Your task to perform on an android device: turn on javascript in the chrome app Image 0: 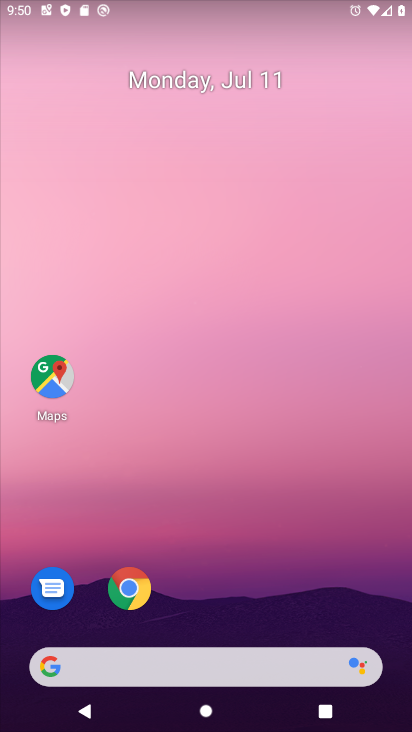
Step 0: click (134, 601)
Your task to perform on an android device: turn on javascript in the chrome app Image 1: 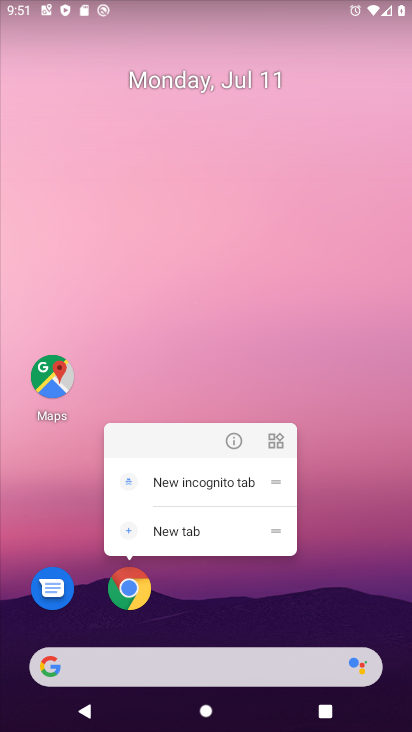
Step 1: click (134, 601)
Your task to perform on an android device: turn on javascript in the chrome app Image 2: 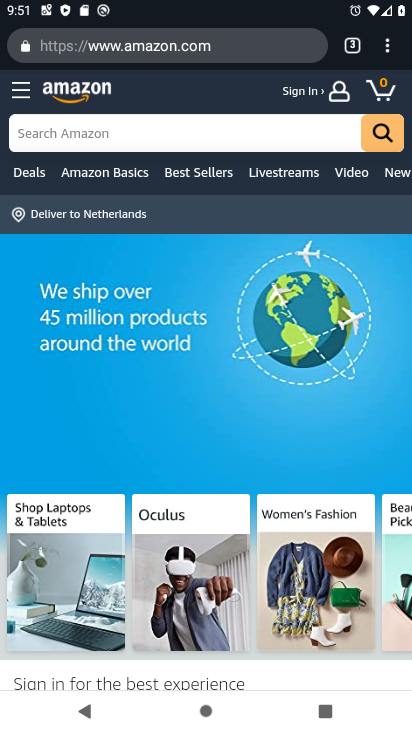
Step 2: drag from (390, 40) to (230, 542)
Your task to perform on an android device: turn on javascript in the chrome app Image 3: 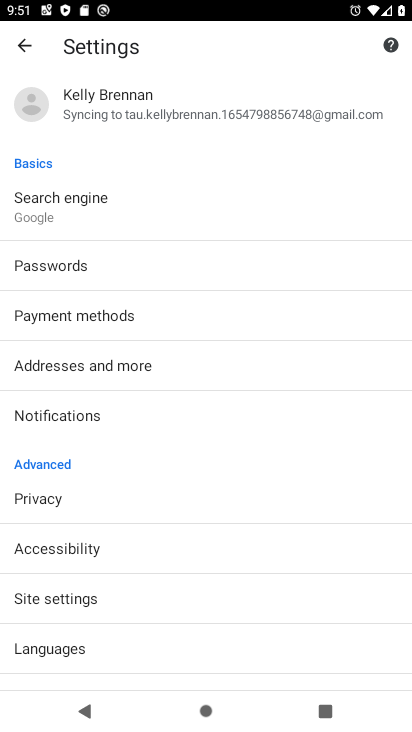
Step 3: click (74, 607)
Your task to perform on an android device: turn on javascript in the chrome app Image 4: 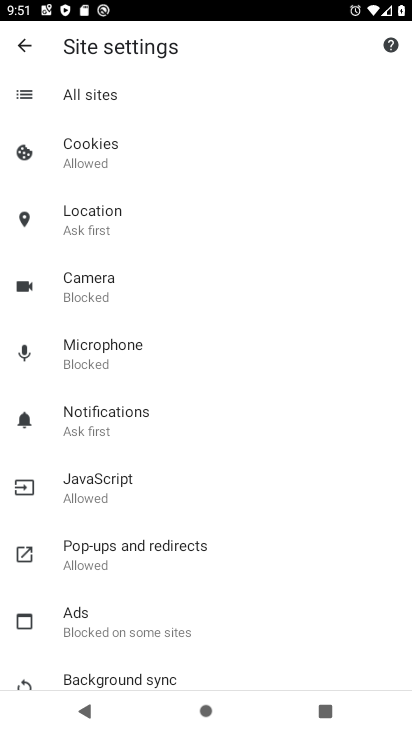
Step 4: click (117, 479)
Your task to perform on an android device: turn on javascript in the chrome app Image 5: 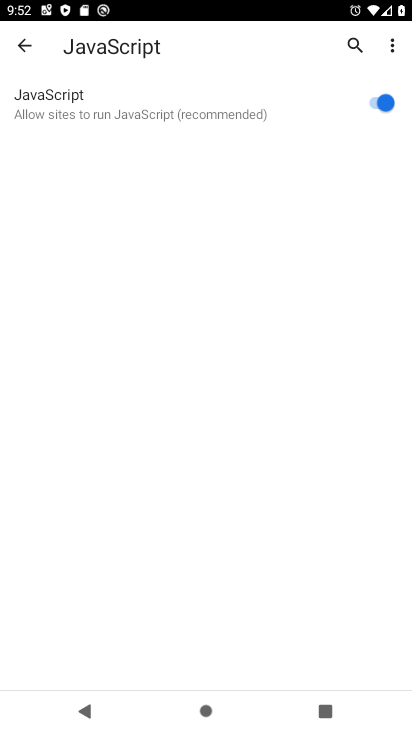
Step 5: task complete